Your task to perform on an android device: turn on improve location accuracy Image 0: 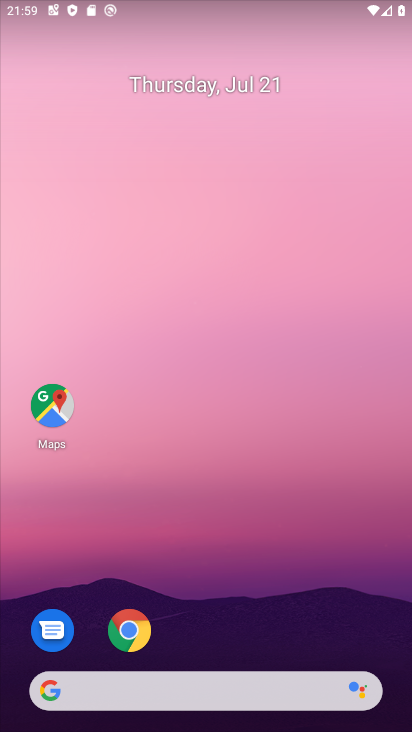
Step 0: drag from (207, 656) to (200, 39)
Your task to perform on an android device: turn on improve location accuracy Image 1: 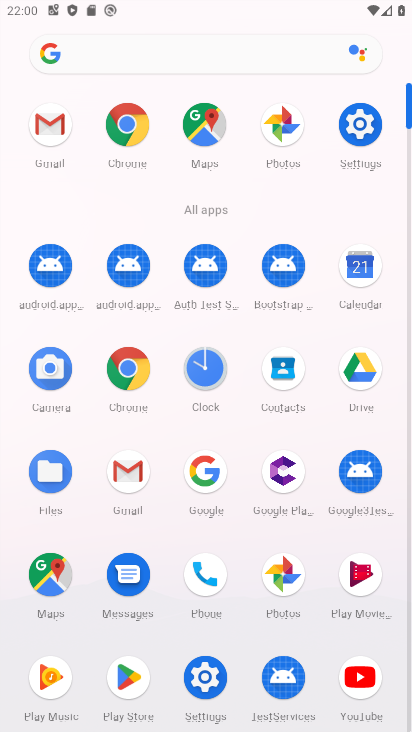
Step 1: click (367, 124)
Your task to perform on an android device: turn on improve location accuracy Image 2: 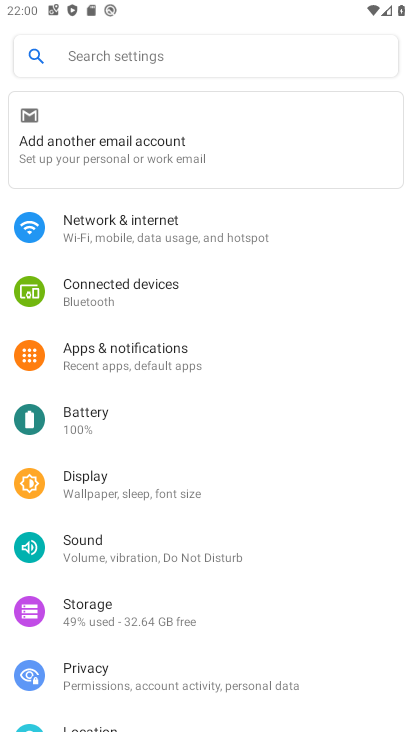
Step 2: drag from (170, 603) to (167, 247)
Your task to perform on an android device: turn on improve location accuracy Image 3: 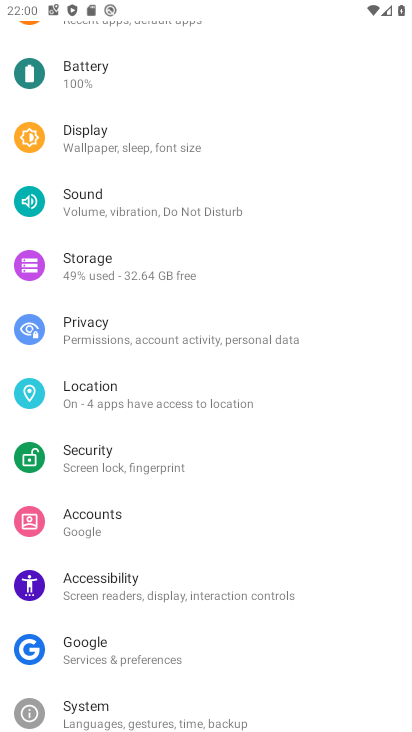
Step 3: click (92, 400)
Your task to perform on an android device: turn on improve location accuracy Image 4: 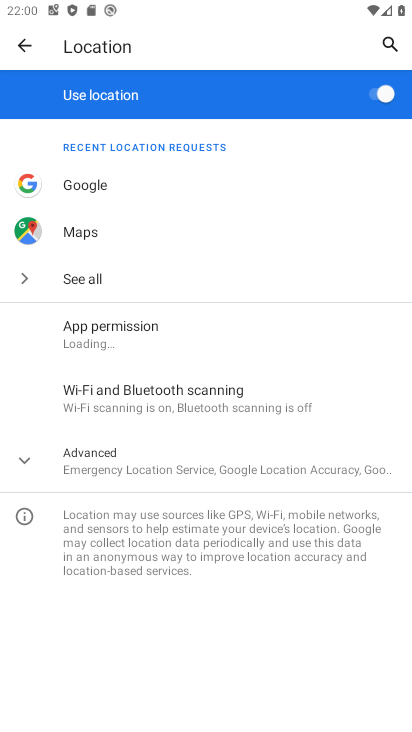
Step 4: click (87, 449)
Your task to perform on an android device: turn on improve location accuracy Image 5: 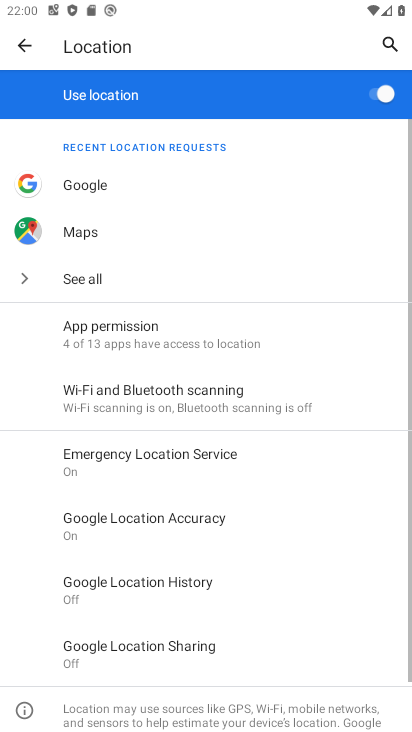
Step 5: click (118, 507)
Your task to perform on an android device: turn on improve location accuracy Image 6: 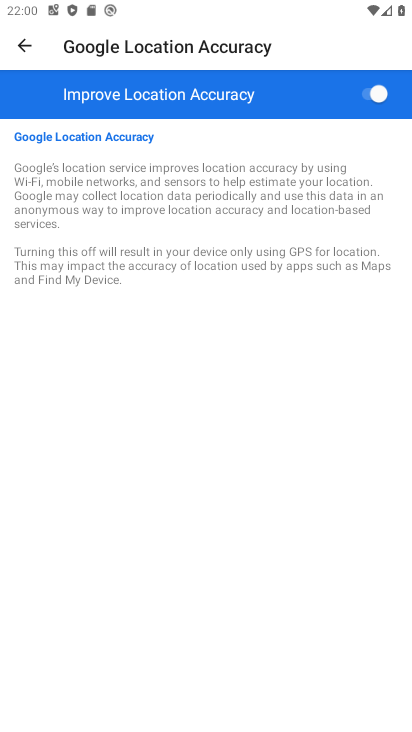
Step 6: task complete